Your task to perform on an android device: Open battery settings Image 0: 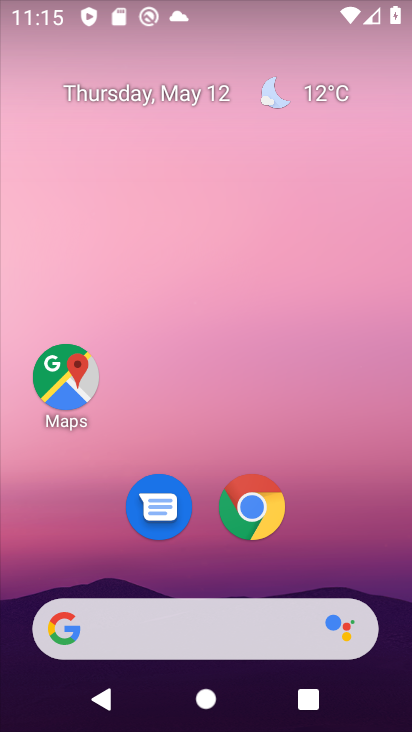
Step 0: drag from (191, 542) to (304, 103)
Your task to perform on an android device: Open battery settings Image 1: 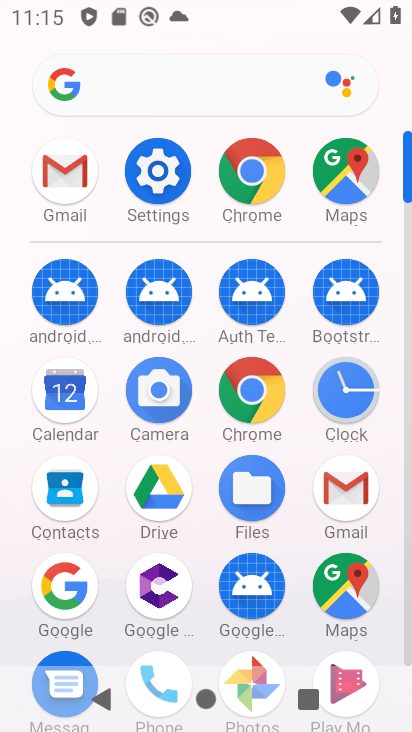
Step 1: click (165, 186)
Your task to perform on an android device: Open battery settings Image 2: 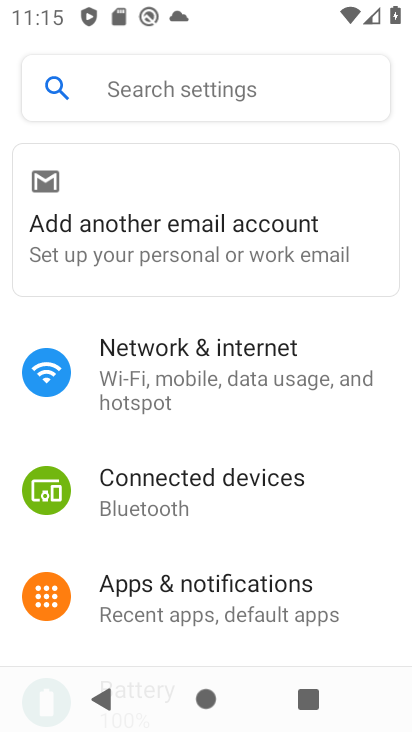
Step 2: drag from (185, 502) to (283, 192)
Your task to perform on an android device: Open battery settings Image 3: 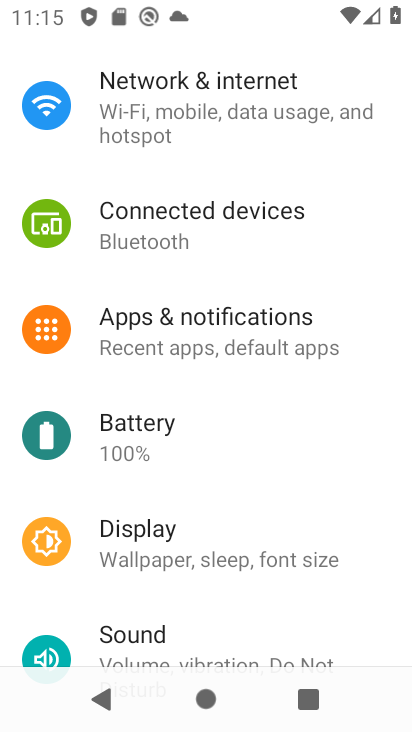
Step 3: click (173, 427)
Your task to perform on an android device: Open battery settings Image 4: 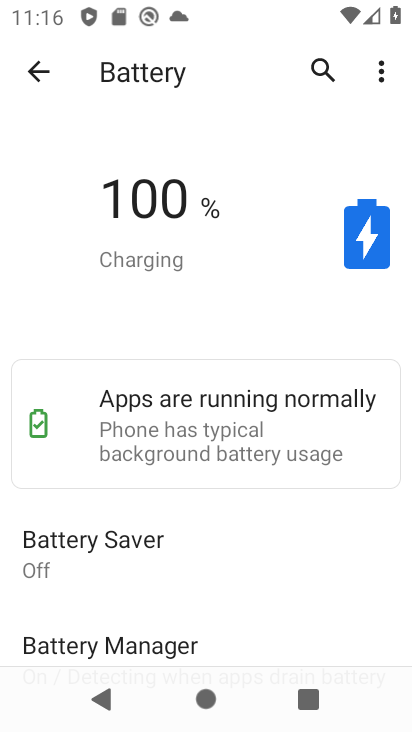
Step 4: task complete